Your task to perform on an android device: change timer sound Image 0: 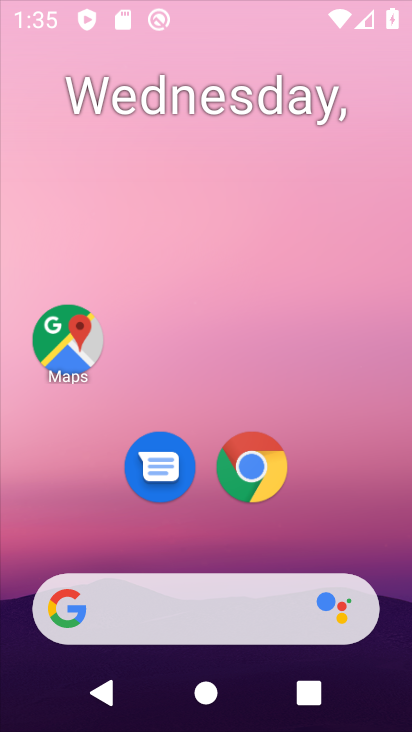
Step 0: click (277, 92)
Your task to perform on an android device: change timer sound Image 1: 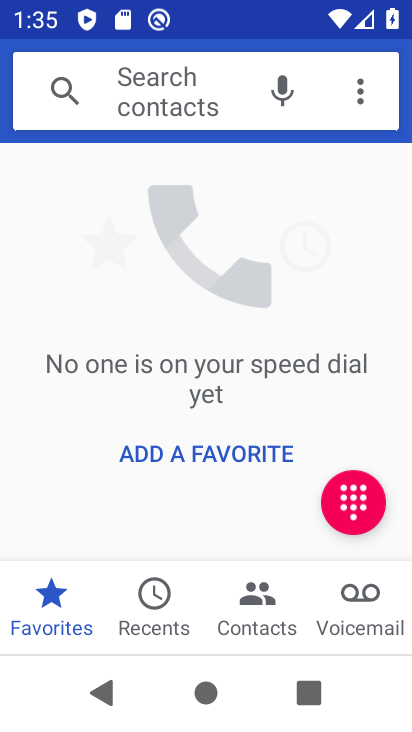
Step 1: press home button
Your task to perform on an android device: change timer sound Image 2: 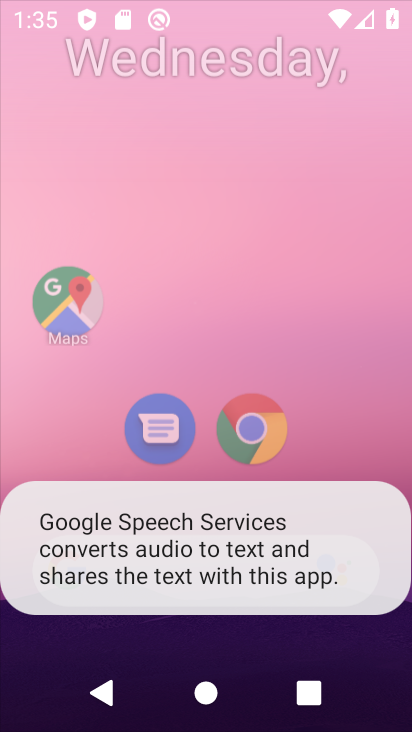
Step 2: drag from (263, 584) to (278, 136)
Your task to perform on an android device: change timer sound Image 3: 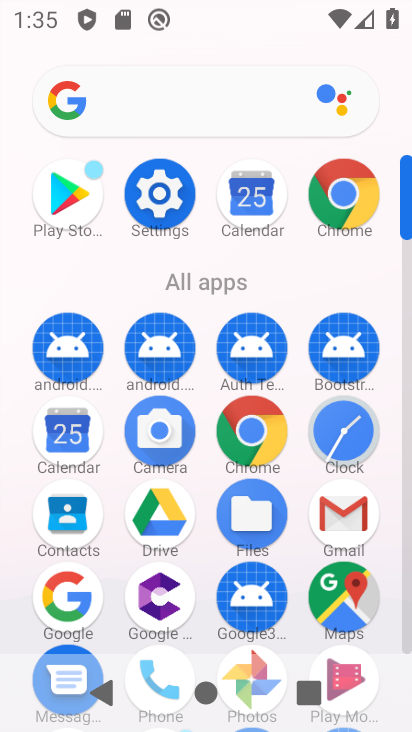
Step 3: click (328, 444)
Your task to perform on an android device: change timer sound Image 4: 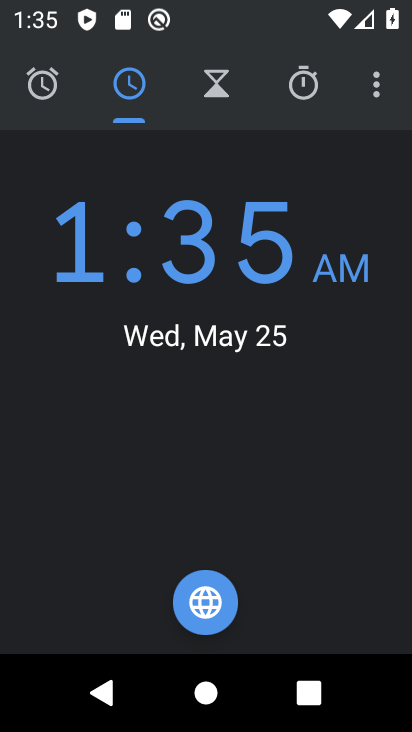
Step 4: click (373, 87)
Your task to perform on an android device: change timer sound Image 5: 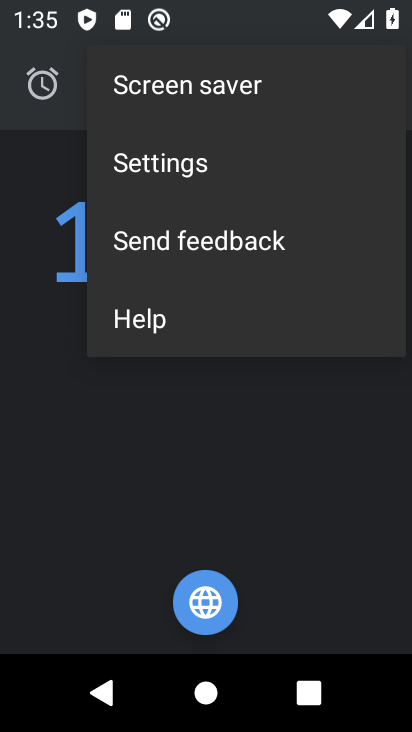
Step 5: click (208, 152)
Your task to perform on an android device: change timer sound Image 6: 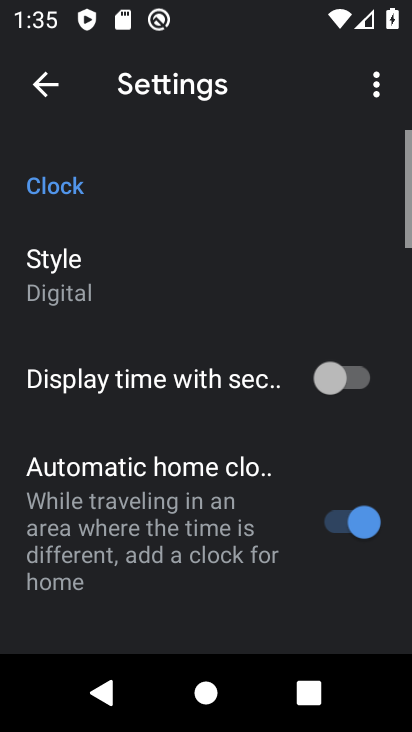
Step 6: drag from (295, 577) to (296, 19)
Your task to perform on an android device: change timer sound Image 7: 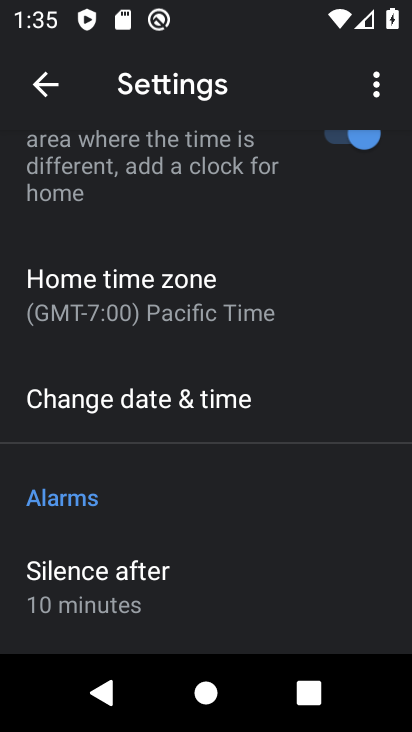
Step 7: drag from (287, 541) to (214, 8)
Your task to perform on an android device: change timer sound Image 8: 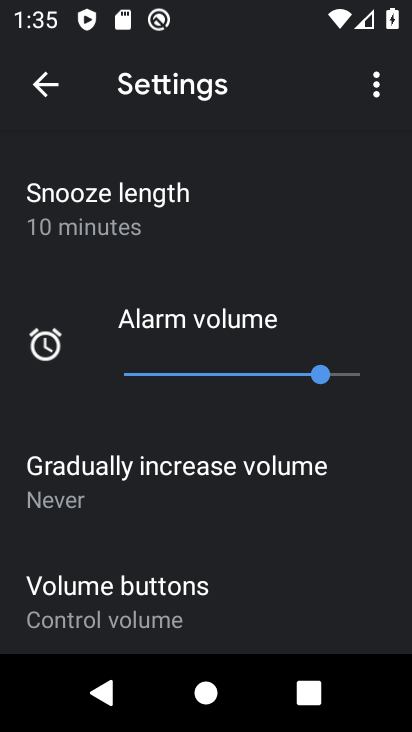
Step 8: drag from (239, 447) to (250, 160)
Your task to perform on an android device: change timer sound Image 9: 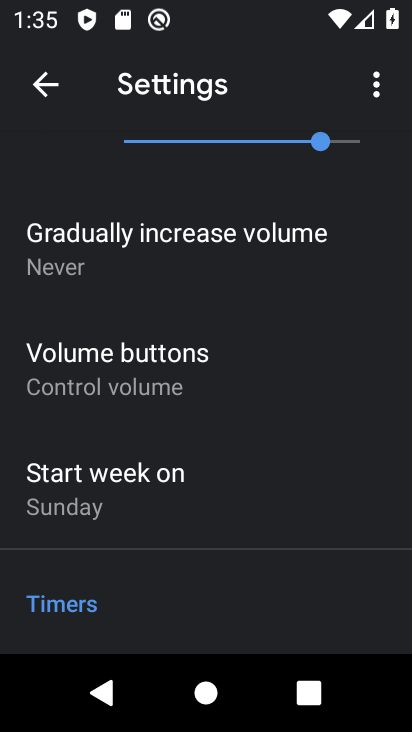
Step 9: drag from (215, 595) to (228, 150)
Your task to perform on an android device: change timer sound Image 10: 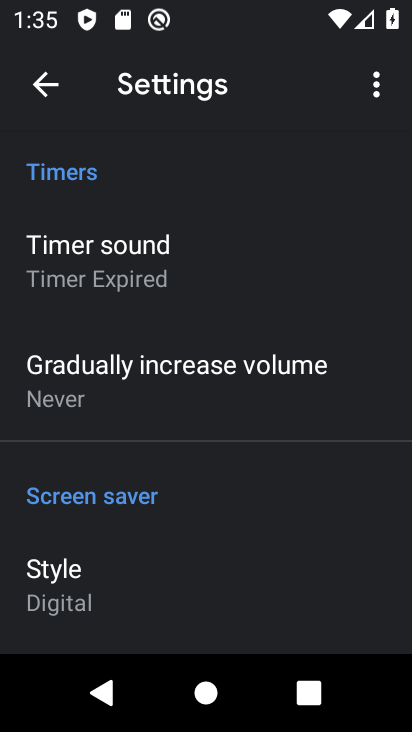
Step 10: click (201, 257)
Your task to perform on an android device: change timer sound Image 11: 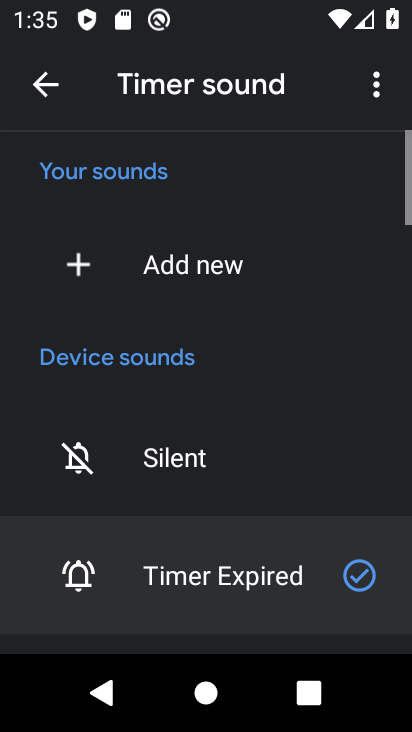
Step 11: drag from (267, 474) to (253, 121)
Your task to perform on an android device: change timer sound Image 12: 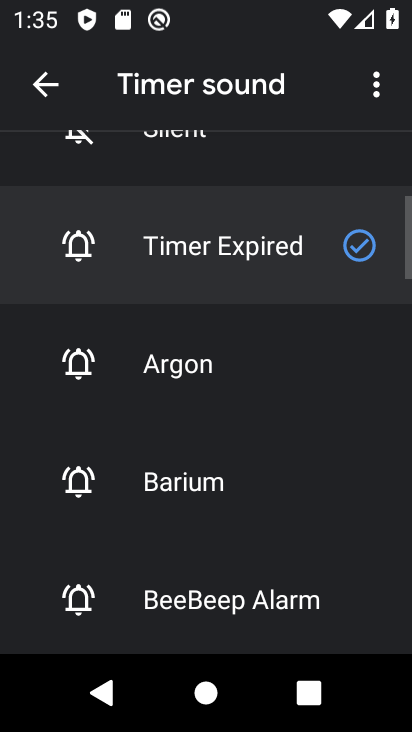
Step 12: click (206, 549)
Your task to perform on an android device: change timer sound Image 13: 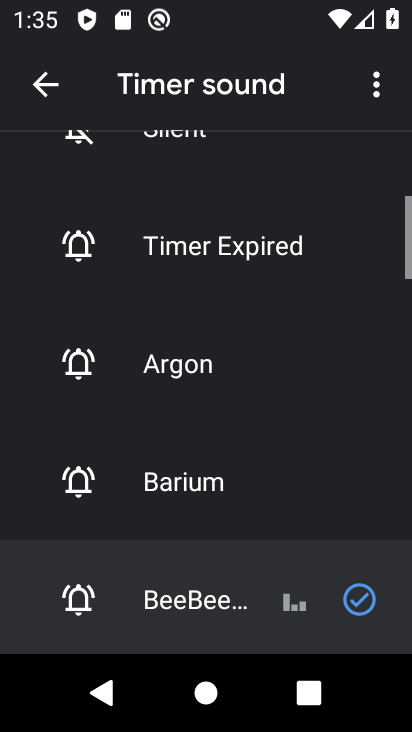
Step 13: task complete